Your task to perform on an android device: What is the news today? Image 0: 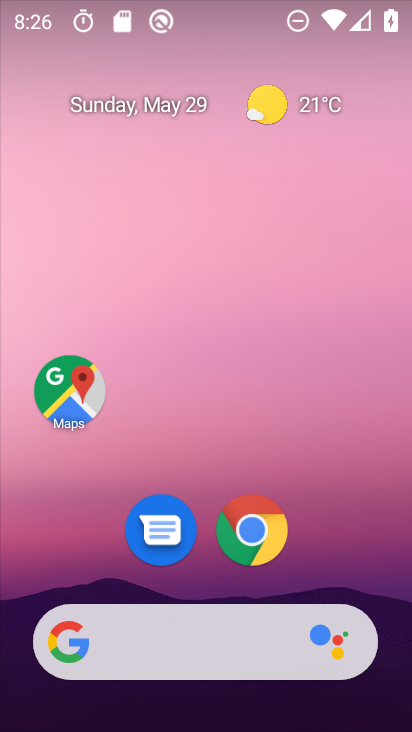
Step 0: drag from (236, 671) to (208, 179)
Your task to perform on an android device: What is the news today? Image 1: 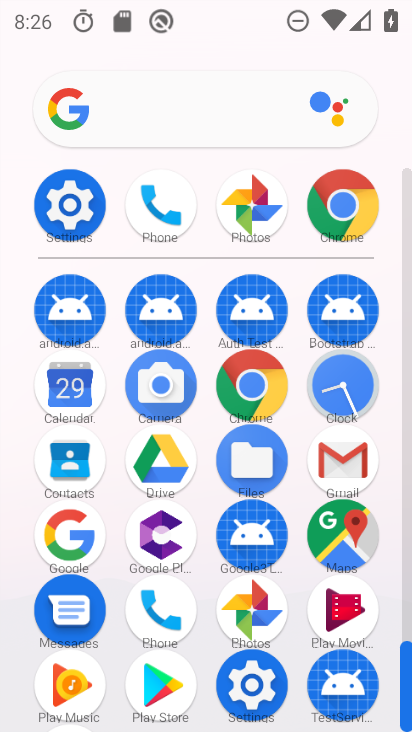
Step 1: click (153, 127)
Your task to perform on an android device: What is the news today? Image 2: 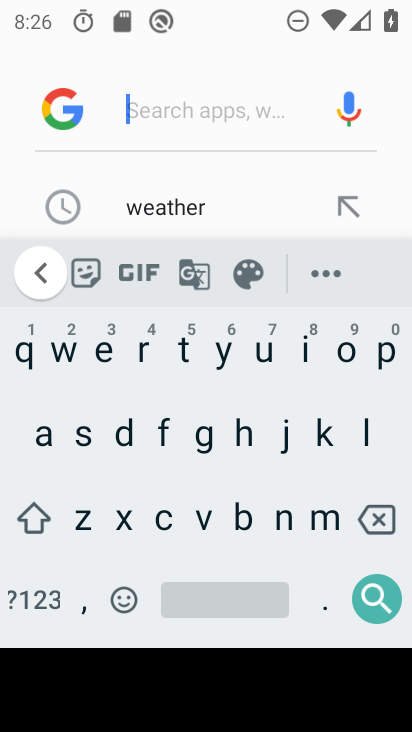
Step 2: click (281, 524)
Your task to perform on an android device: What is the news today? Image 3: 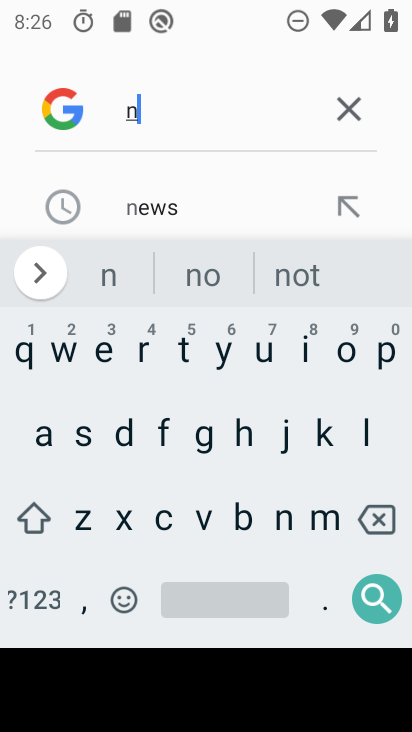
Step 3: click (153, 212)
Your task to perform on an android device: What is the news today? Image 4: 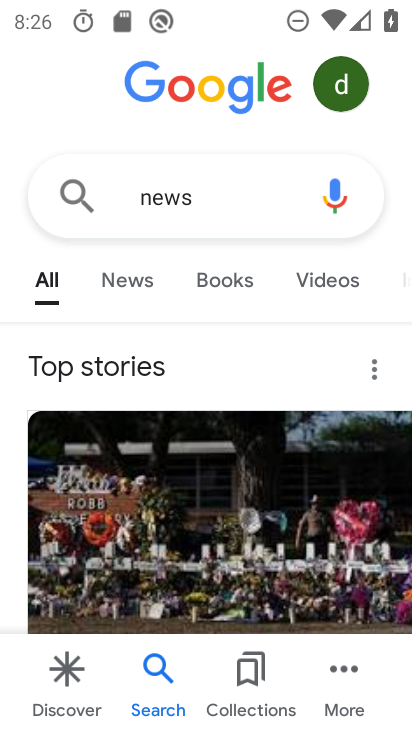
Step 4: task complete